Your task to perform on an android device: turn on wifi Image 0: 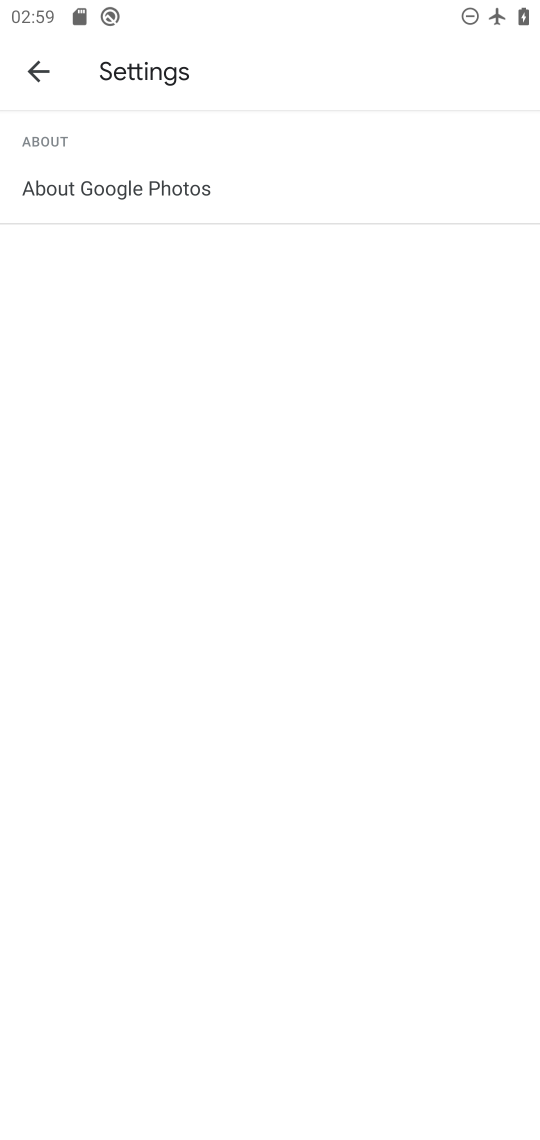
Step 0: press home button
Your task to perform on an android device: turn on wifi Image 1: 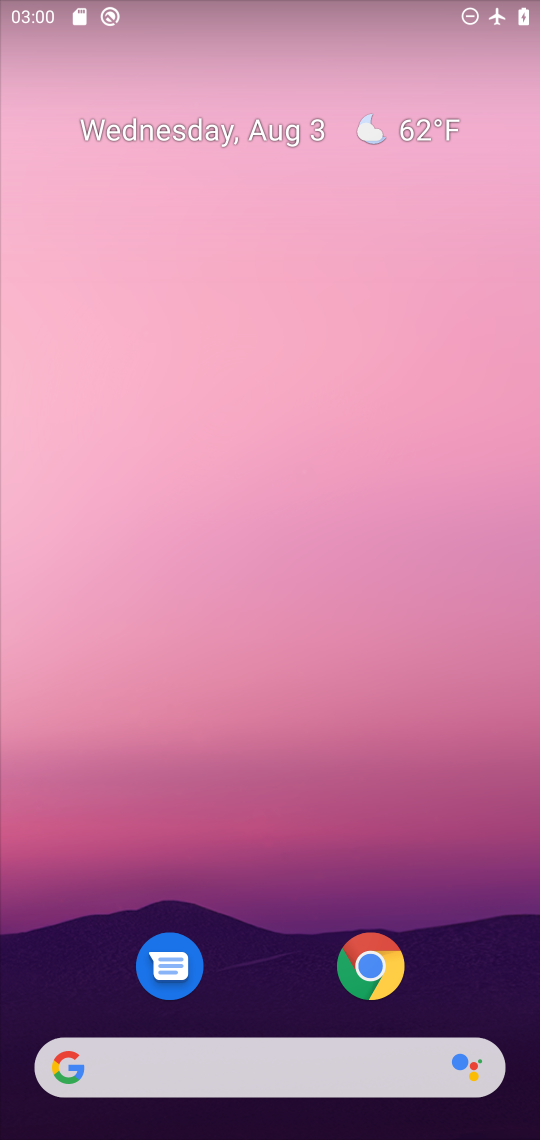
Step 1: drag from (287, 919) to (287, 328)
Your task to perform on an android device: turn on wifi Image 2: 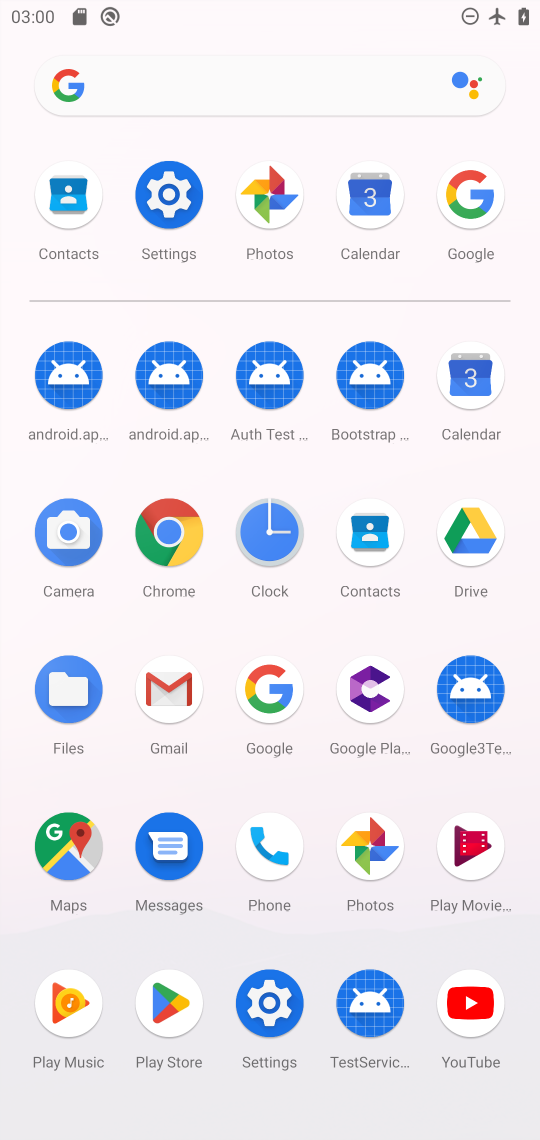
Step 2: click (168, 214)
Your task to perform on an android device: turn on wifi Image 3: 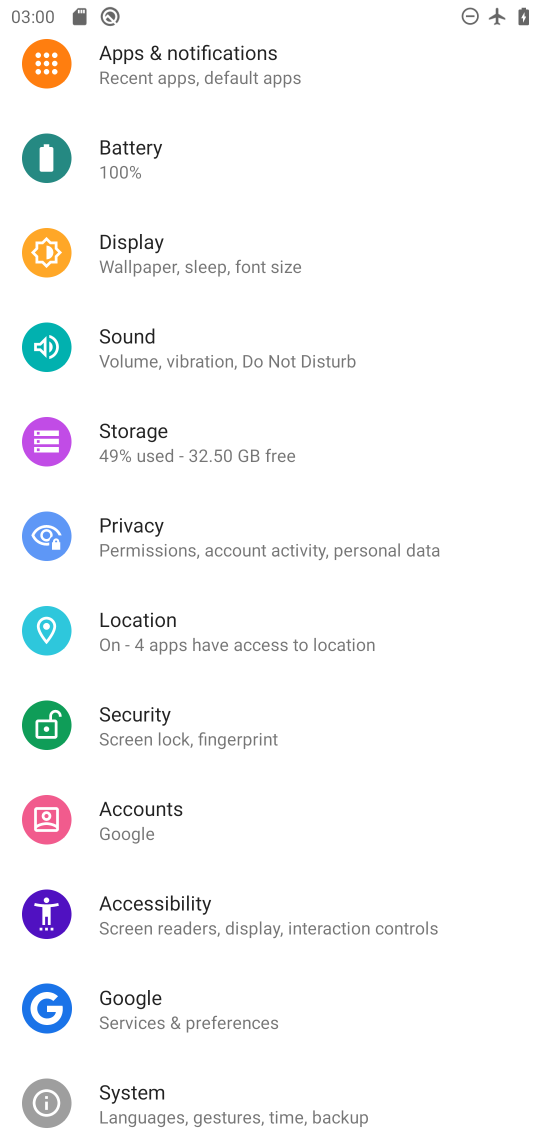
Step 3: drag from (182, 128) to (210, 630)
Your task to perform on an android device: turn on wifi Image 4: 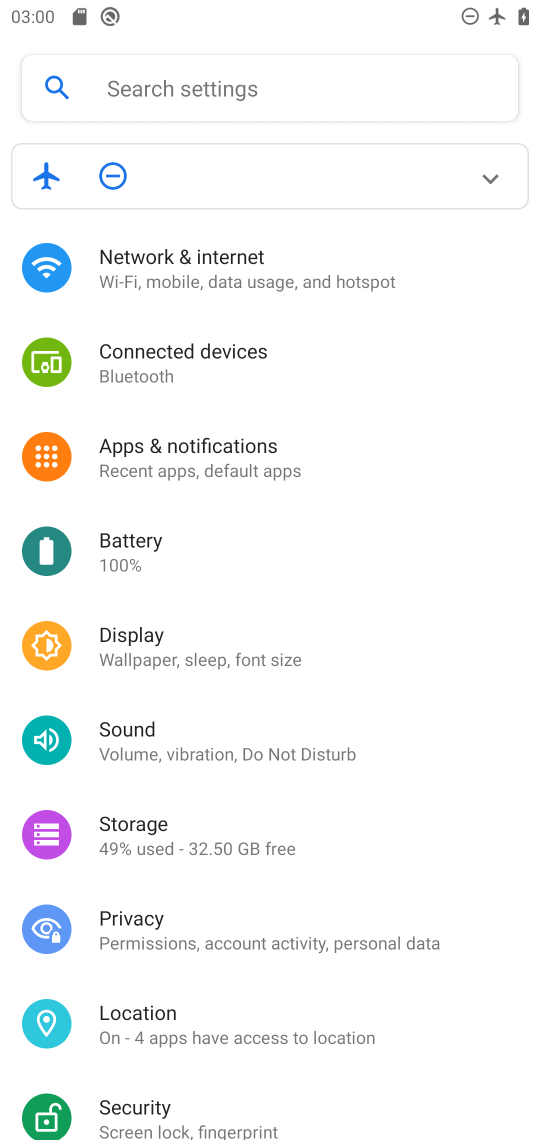
Step 4: click (243, 261)
Your task to perform on an android device: turn on wifi Image 5: 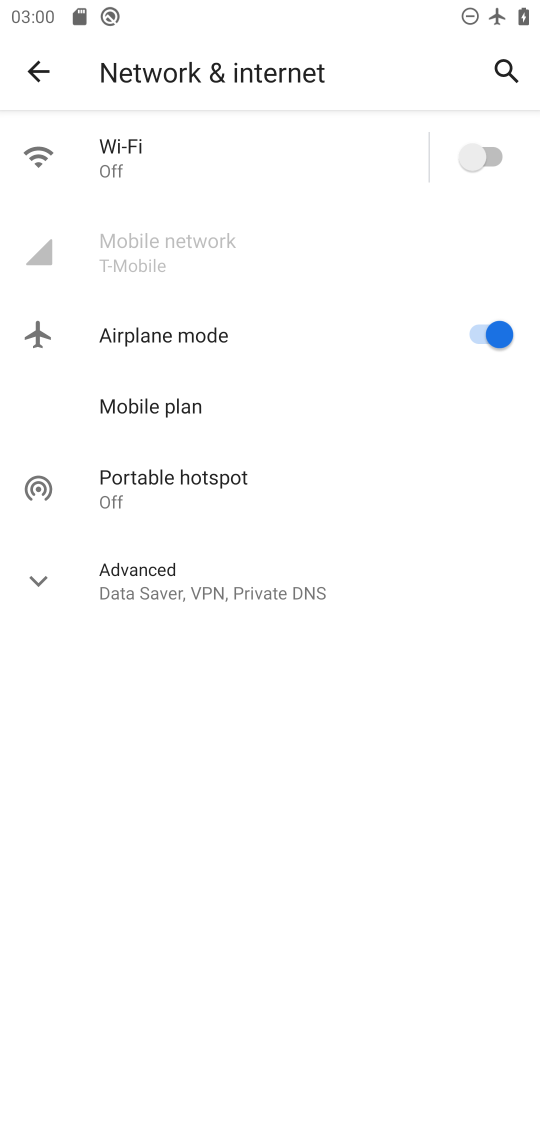
Step 5: click (507, 149)
Your task to perform on an android device: turn on wifi Image 6: 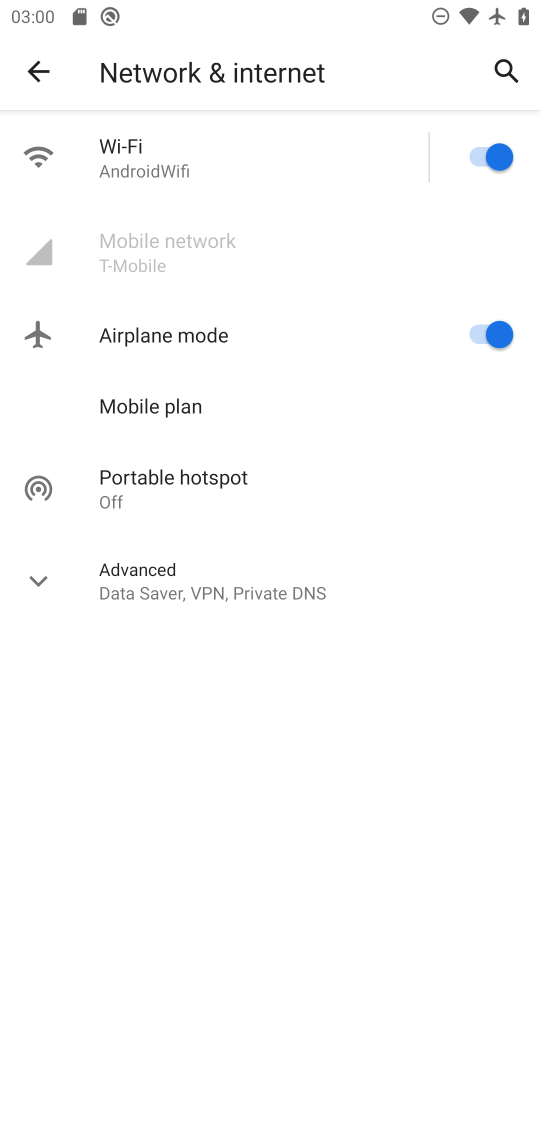
Step 6: task complete